Your task to perform on an android device: remove spam from my inbox in the gmail app Image 0: 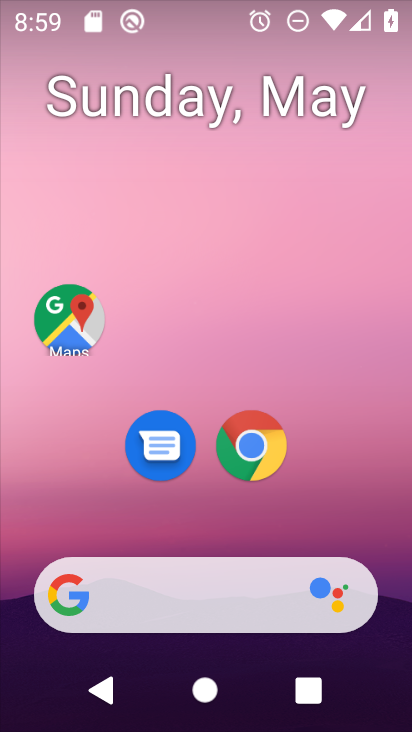
Step 0: drag from (239, 614) to (235, 131)
Your task to perform on an android device: remove spam from my inbox in the gmail app Image 1: 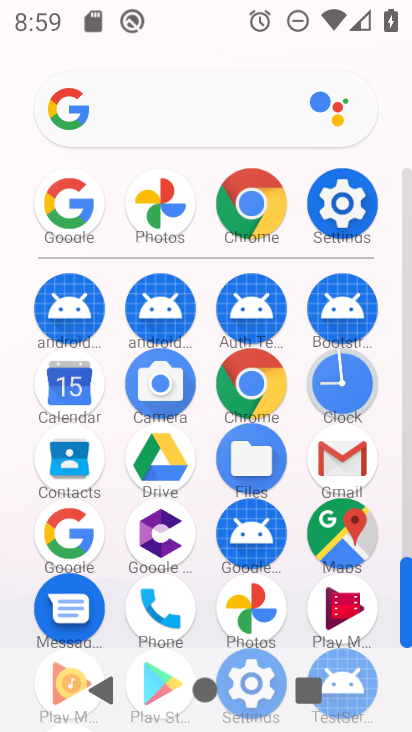
Step 1: click (349, 474)
Your task to perform on an android device: remove spam from my inbox in the gmail app Image 2: 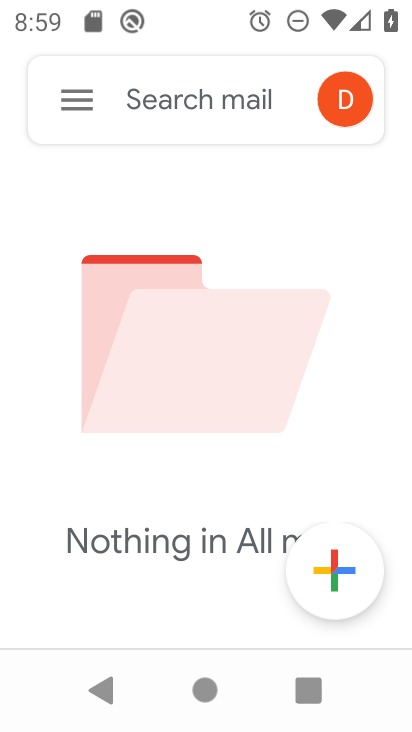
Step 2: click (81, 118)
Your task to perform on an android device: remove spam from my inbox in the gmail app Image 3: 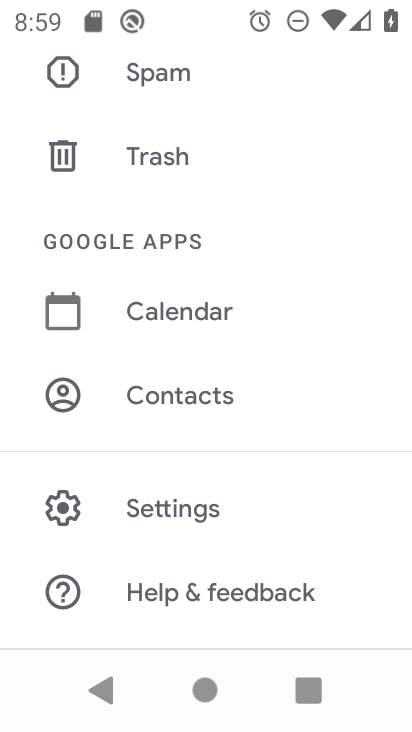
Step 3: click (197, 79)
Your task to perform on an android device: remove spam from my inbox in the gmail app Image 4: 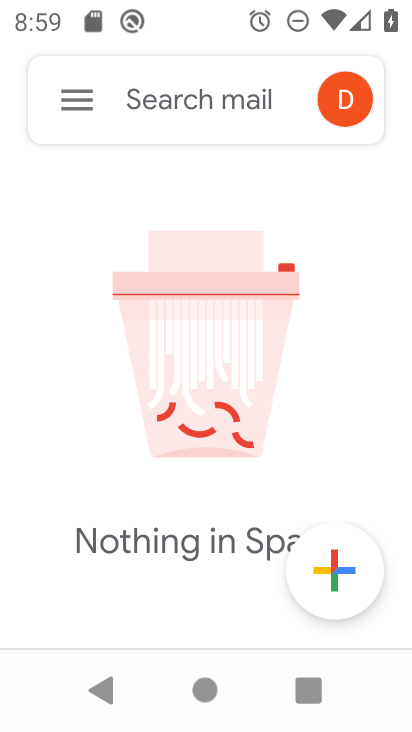
Step 4: task complete